Your task to perform on an android device: Do I have any events this weekend? Image 0: 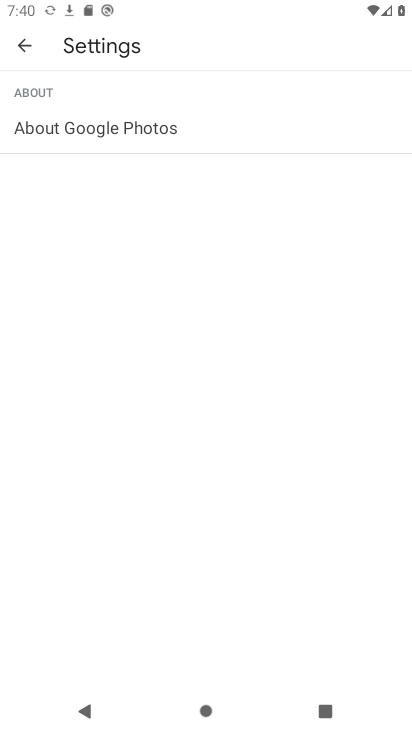
Step 0: press home button
Your task to perform on an android device: Do I have any events this weekend? Image 1: 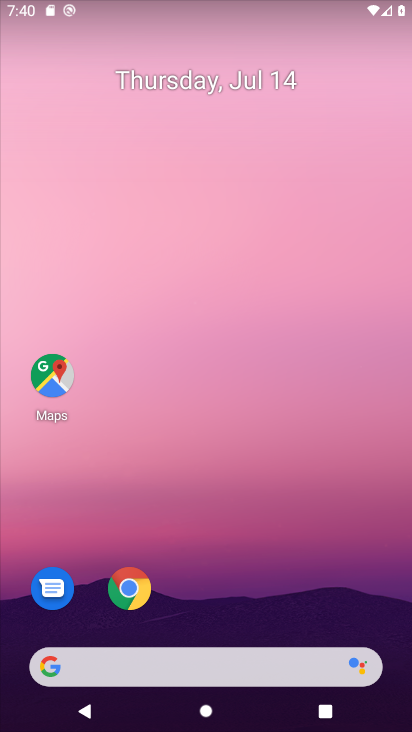
Step 1: drag from (204, 616) to (143, 274)
Your task to perform on an android device: Do I have any events this weekend? Image 2: 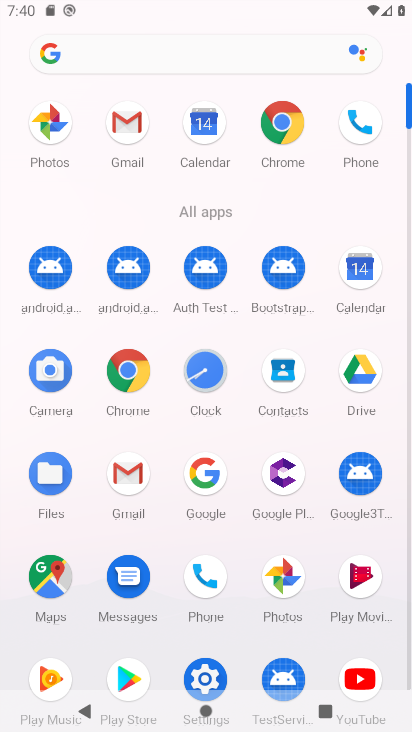
Step 2: click (351, 285)
Your task to perform on an android device: Do I have any events this weekend? Image 3: 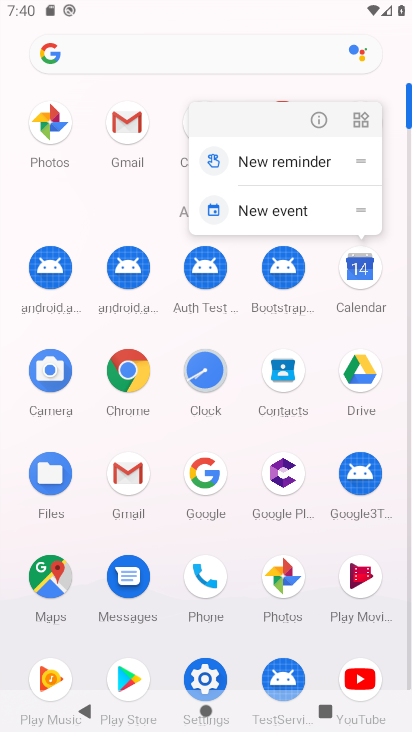
Step 3: click (358, 274)
Your task to perform on an android device: Do I have any events this weekend? Image 4: 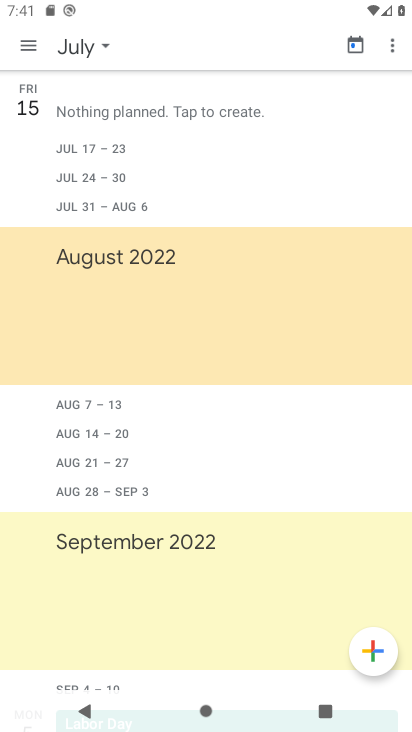
Step 4: click (15, 51)
Your task to perform on an android device: Do I have any events this weekend? Image 5: 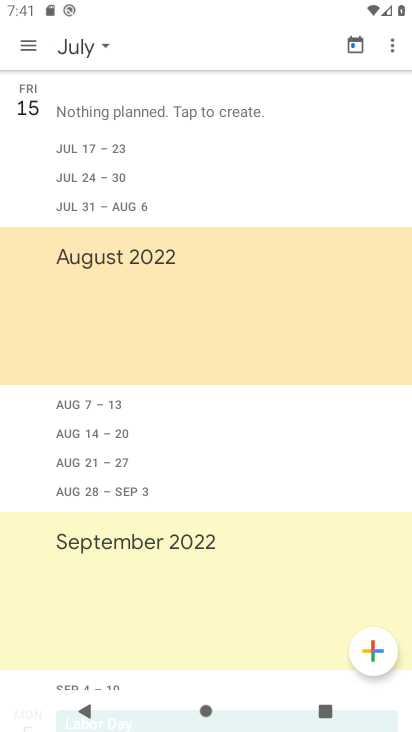
Step 5: click (17, 45)
Your task to perform on an android device: Do I have any events this weekend? Image 6: 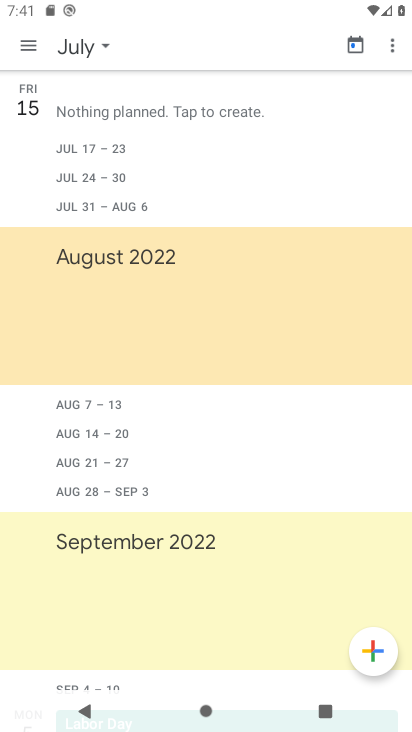
Step 6: click (25, 33)
Your task to perform on an android device: Do I have any events this weekend? Image 7: 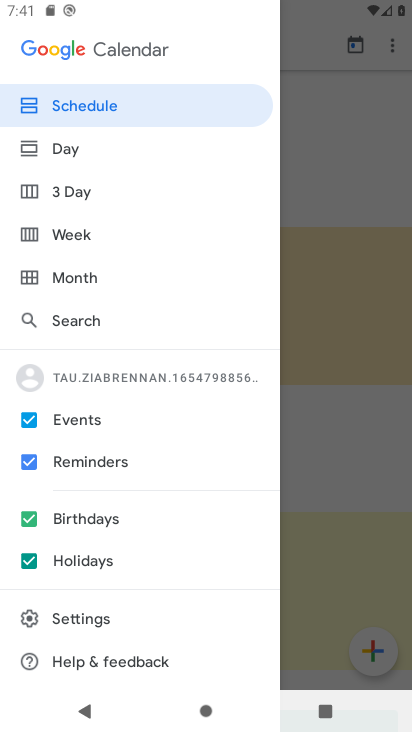
Step 7: click (85, 241)
Your task to perform on an android device: Do I have any events this weekend? Image 8: 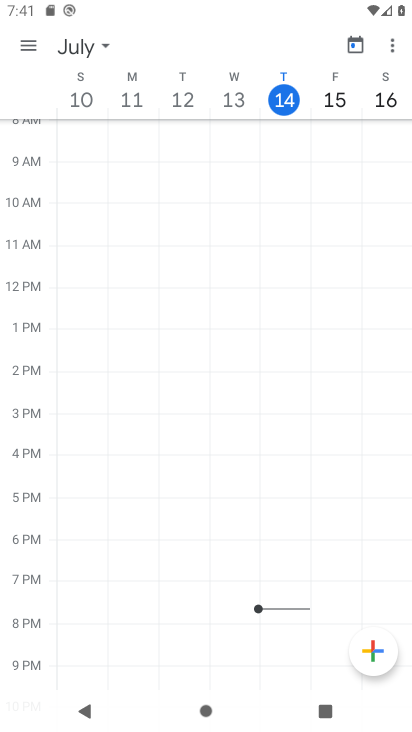
Step 8: task complete